Your task to perform on an android device: turn off translation in the chrome app Image 0: 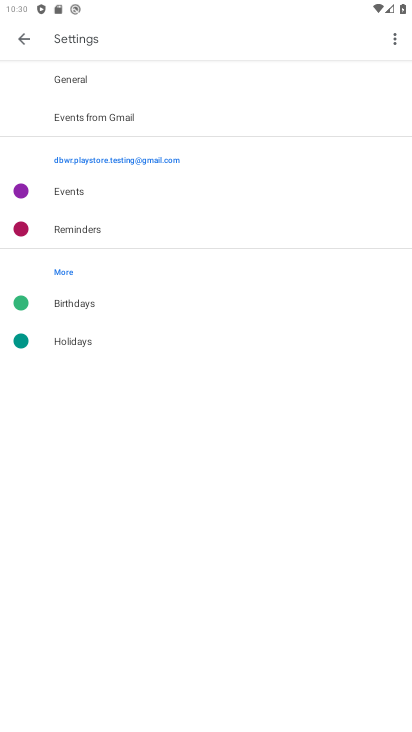
Step 0: press home button
Your task to perform on an android device: turn off translation in the chrome app Image 1: 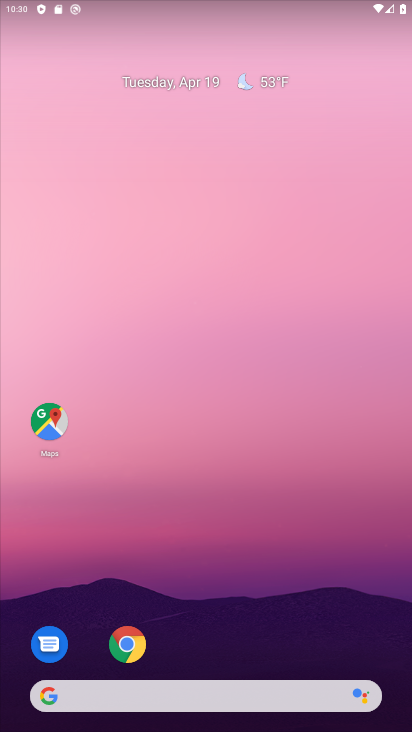
Step 1: click (124, 646)
Your task to perform on an android device: turn off translation in the chrome app Image 2: 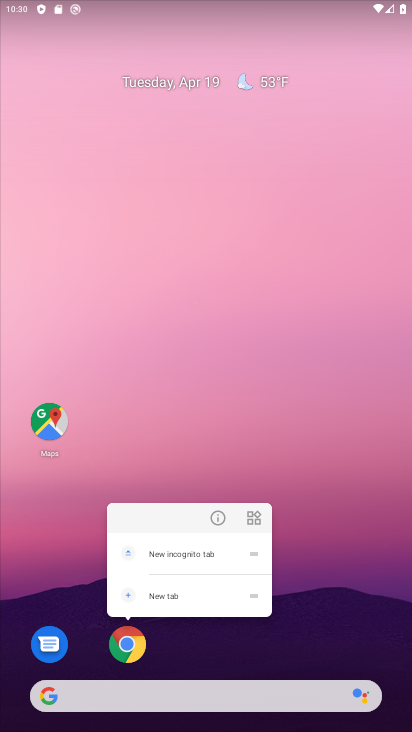
Step 2: click (124, 646)
Your task to perform on an android device: turn off translation in the chrome app Image 3: 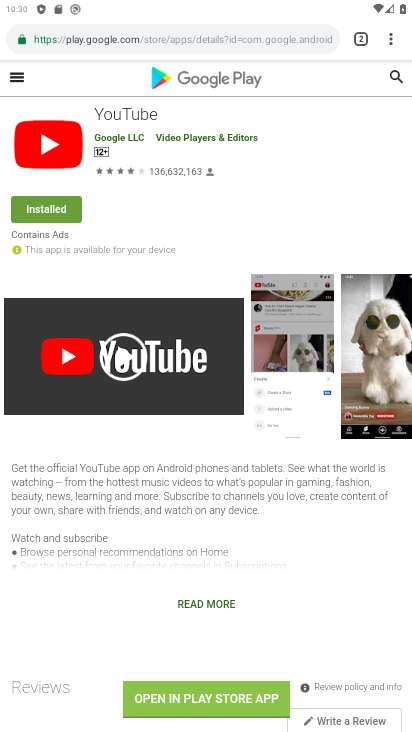
Step 3: click (387, 33)
Your task to perform on an android device: turn off translation in the chrome app Image 4: 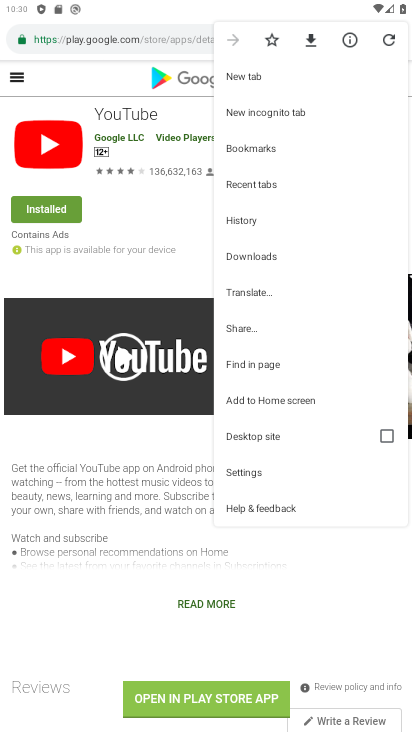
Step 4: click (245, 461)
Your task to perform on an android device: turn off translation in the chrome app Image 5: 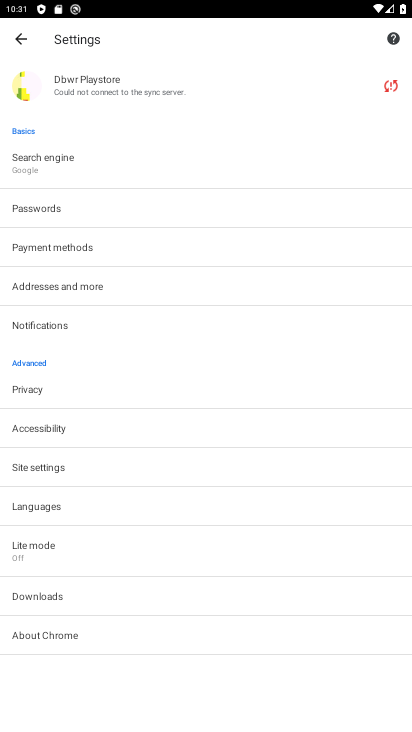
Step 5: click (167, 505)
Your task to perform on an android device: turn off translation in the chrome app Image 6: 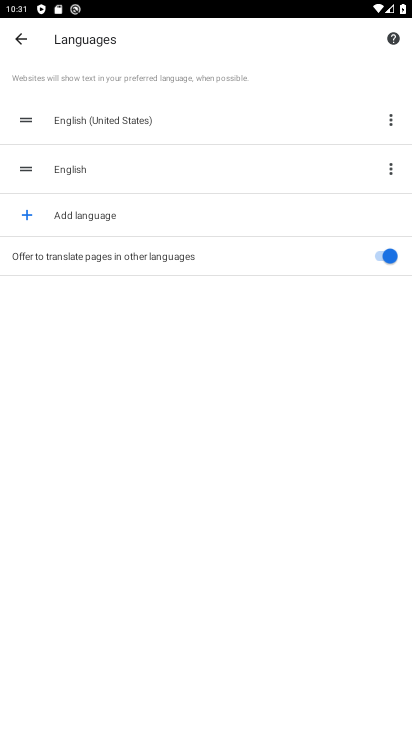
Step 6: click (387, 253)
Your task to perform on an android device: turn off translation in the chrome app Image 7: 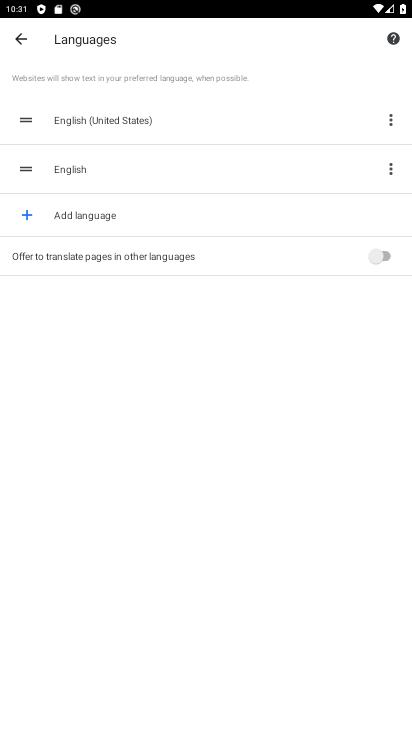
Step 7: task complete